Your task to perform on an android device: change the upload size in google photos Image 0: 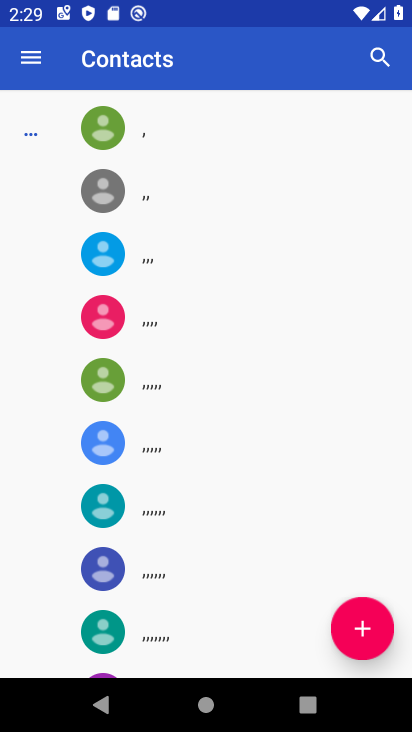
Step 0: press home button
Your task to perform on an android device: change the upload size in google photos Image 1: 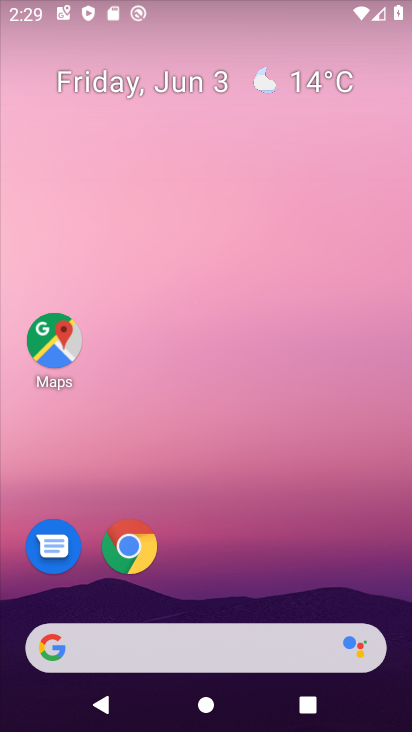
Step 1: drag from (347, 569) to (307, 106)
Your task to perform on an android device: change the upload size in google photos Image 2: 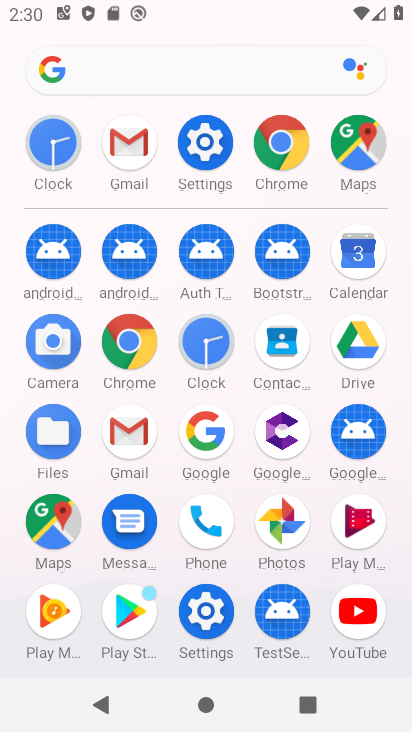
Step 2: click (287, 534)
Your task to perform on an android device: change the upload size in google photos Image 3: 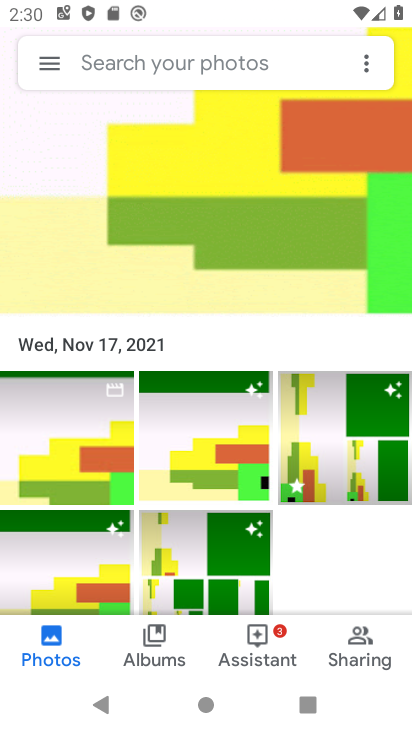
Step 3: task complete